Your task to perform on an android device: open wifi settings Image 0: 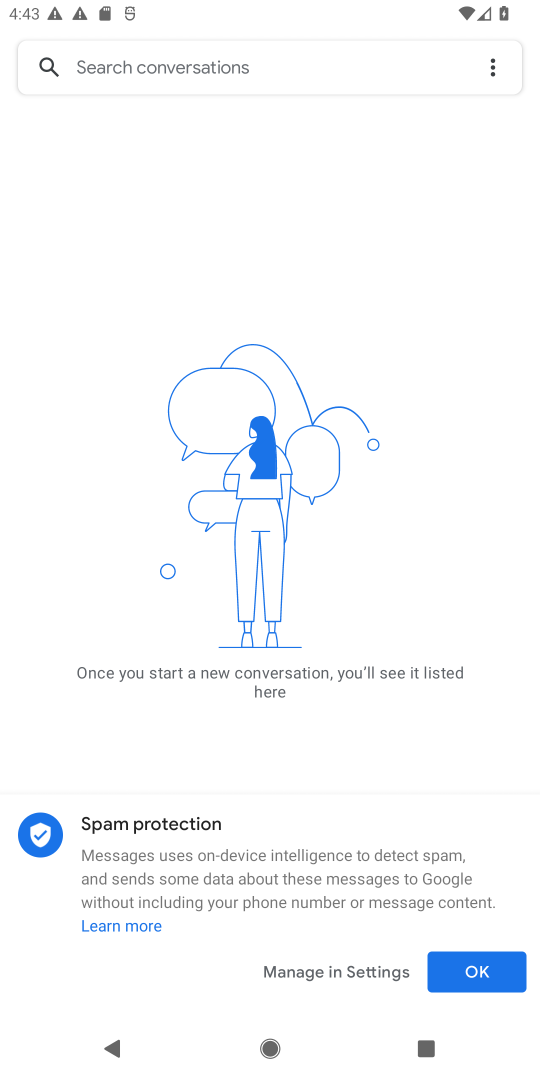
Step 0: press home button
Your task to perform on an android device: open wifi settings Image 1: 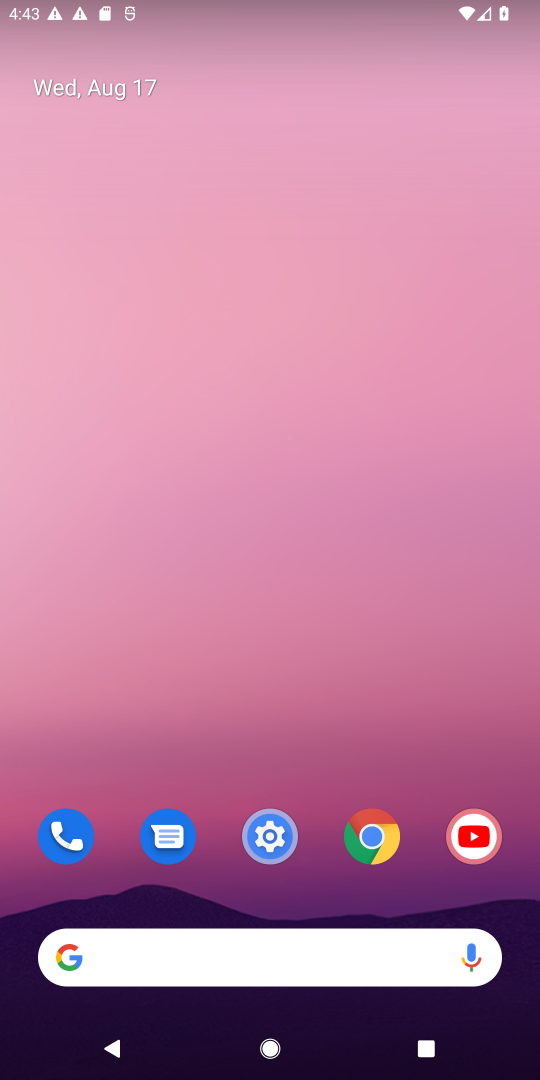
Step 1: click (270, 840)
Your task to perform on an android device: open wifi settings Image 2: 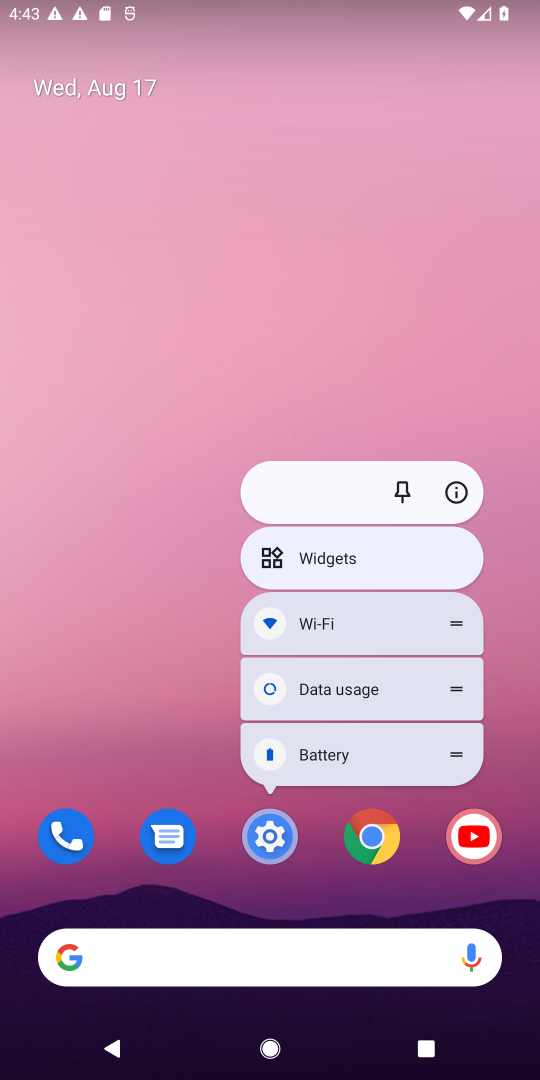
Step 2: drag from (270, 839) to (235, 700)
Your task to perform on an android device: open wifi settings Image 3: 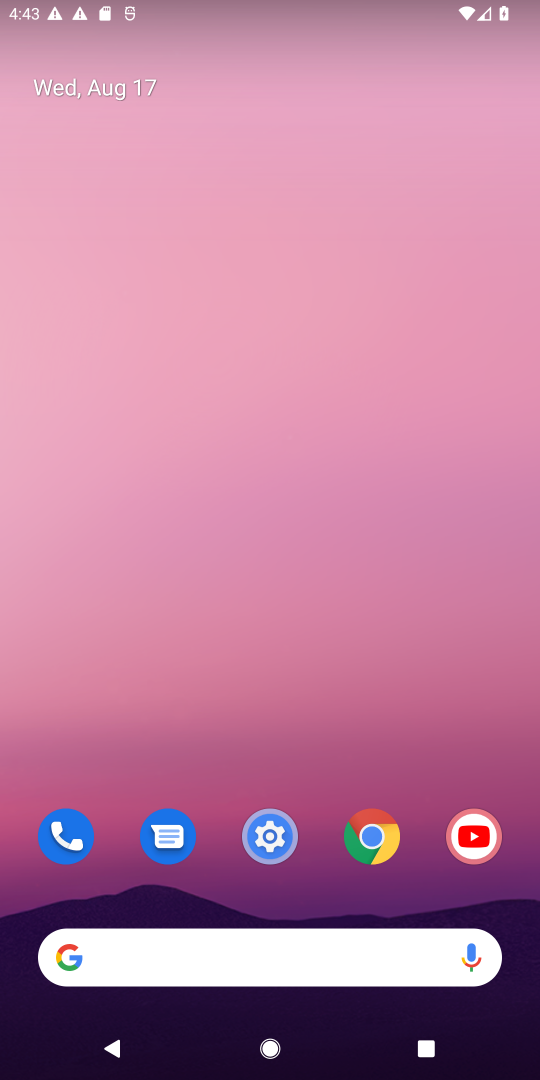
Step 3: drag from (266, 840) to (197, 702)
Your task to perform on an android device: open wifi settings Image 4: 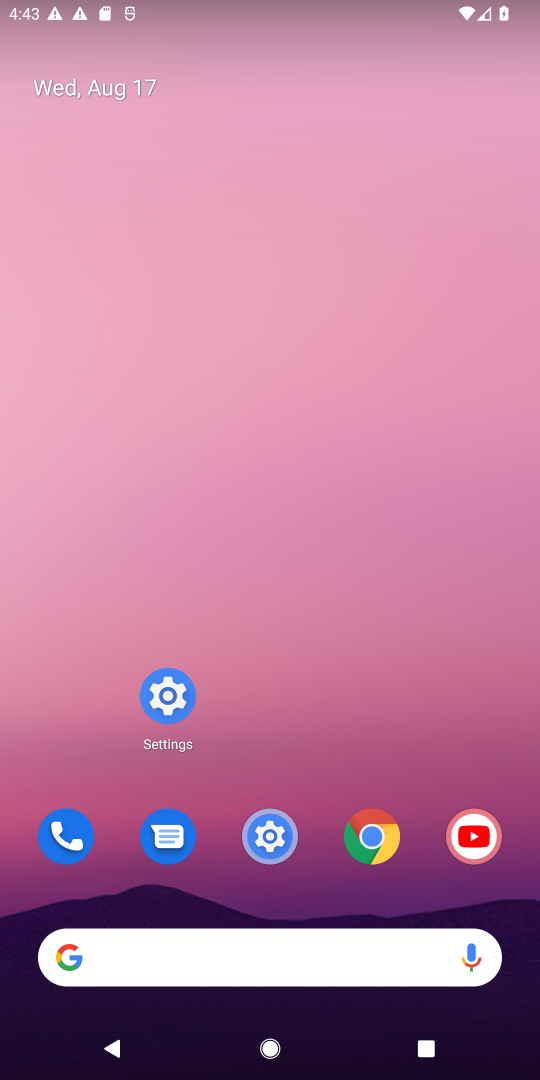
Step 4: click (159, 693)
Your task to perform on an android device: open wifi settings Image 5: 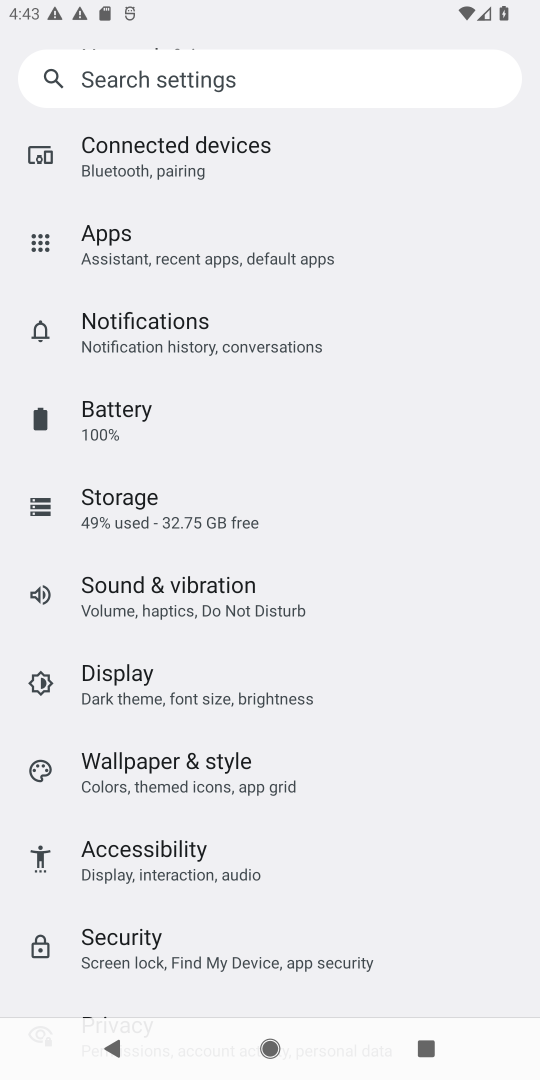
Step 5: drag from (323, 193) to (298, 827)
Your task to perform on an android device: open wifi settings Image 6: 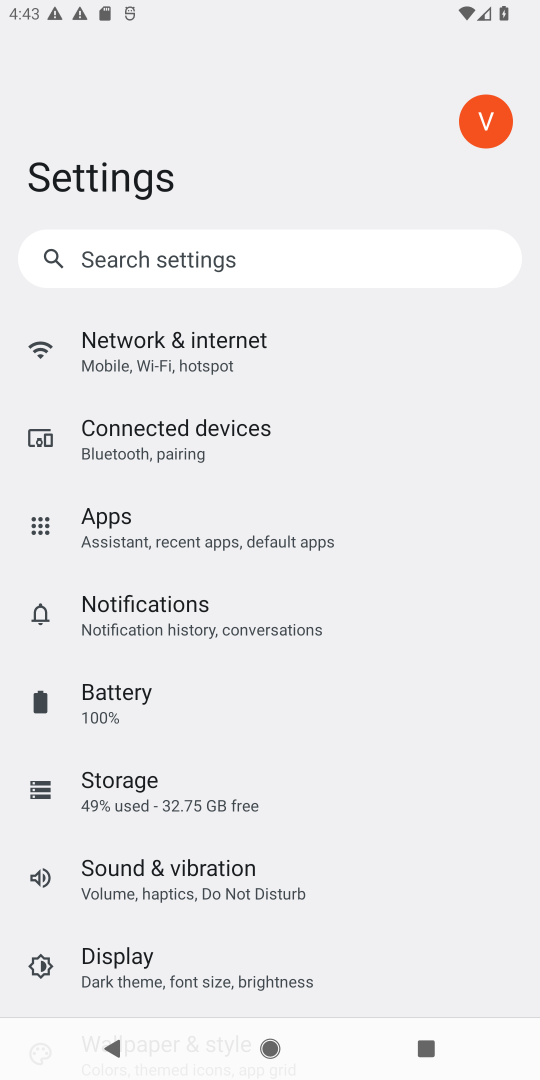
Step 6: click (176, 351)
Your task to perform on an android device: open wifi settings Image 7: 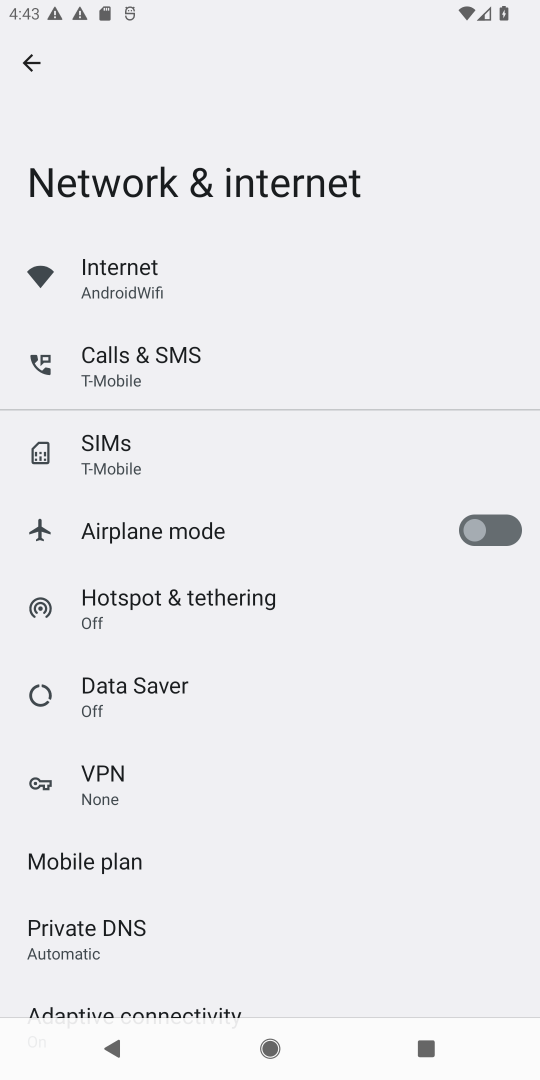
Step 7: click (120, 278)
Your task to perform on an android device: open wifi settings Image 8: 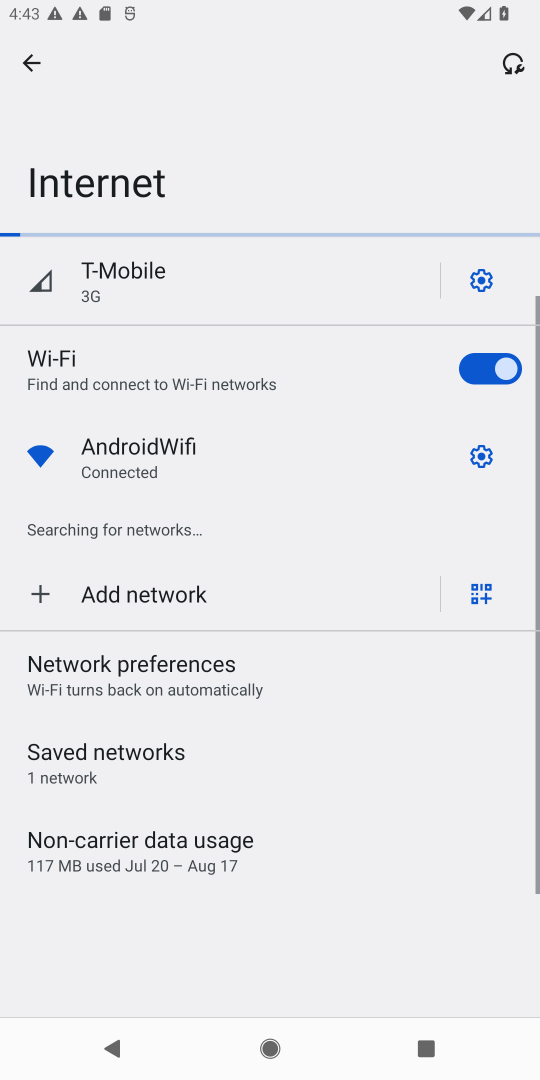
Step 8: click (479, 445)
Your task to perform on an android device: open wifi settings Image 9: 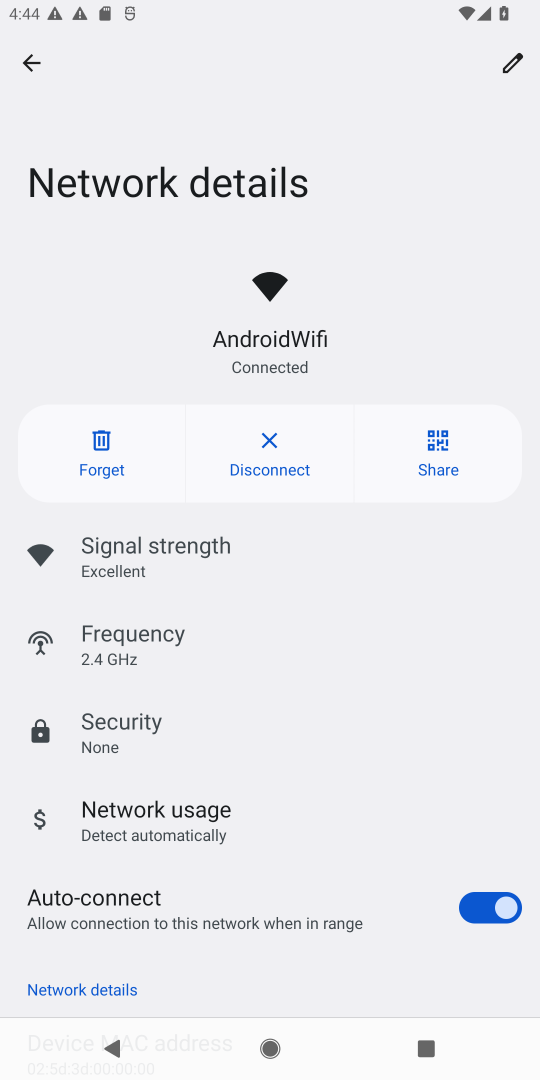
Step 9: task complete